Your task to perform on an android device: set default search engine in the chrome app Image 0: 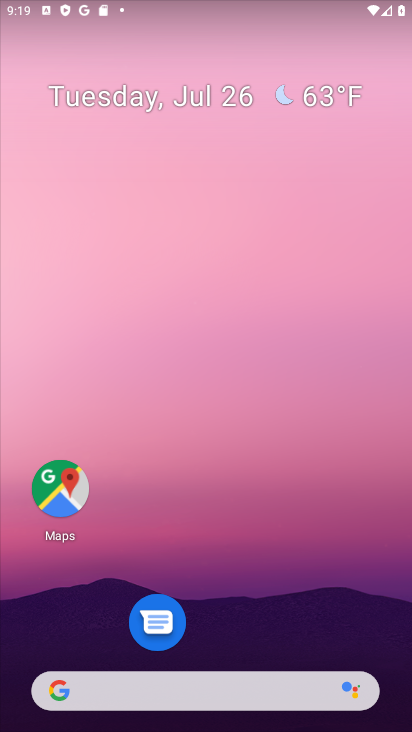
Step 0: drag from (272, 577) to (384, 14)
Your task to perform on an android device: set default search engine in the chrome app Image 1: 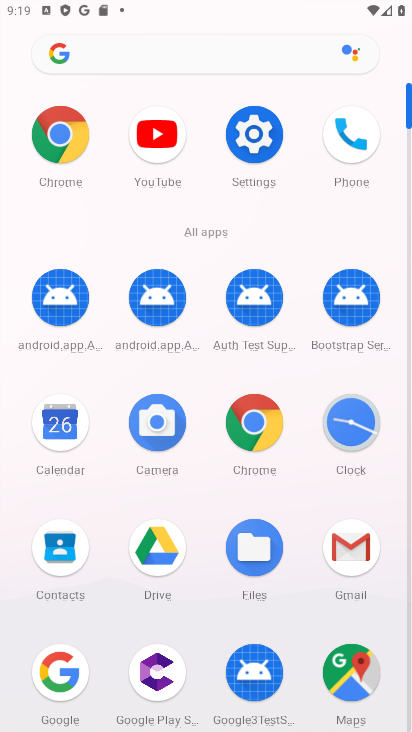
Step 1: click (84, 136)
Your task to perform on an android device: set default search engine in the chrome app Image 2: 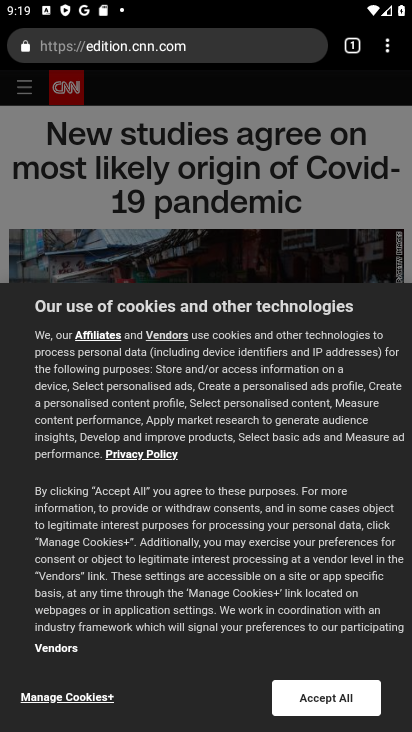
Step 2: drag from (384, 43) to (246, 507)
Your task to perform on an android device: set default search engine in the chrome app Image 3: 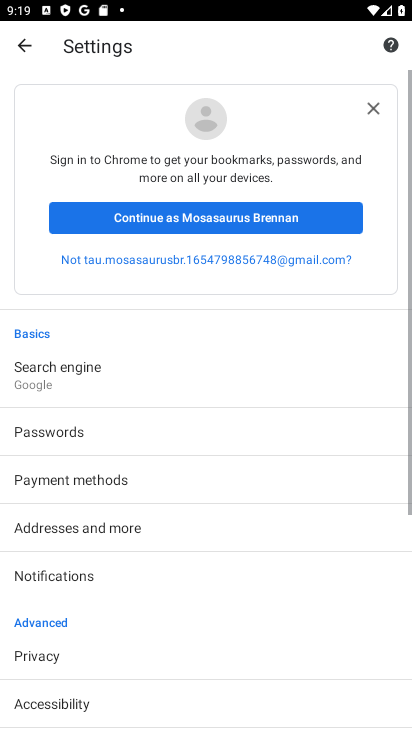
Step 3: click (73, 381)
Your task to perform on an android device: set default search engine in the chrome app Image 4: 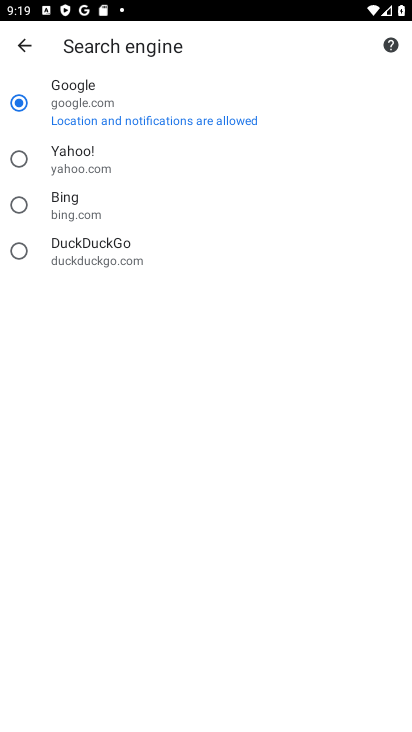
Step 4: task complete